Your task to perform on an android device: open device folders in google photos Image 0: 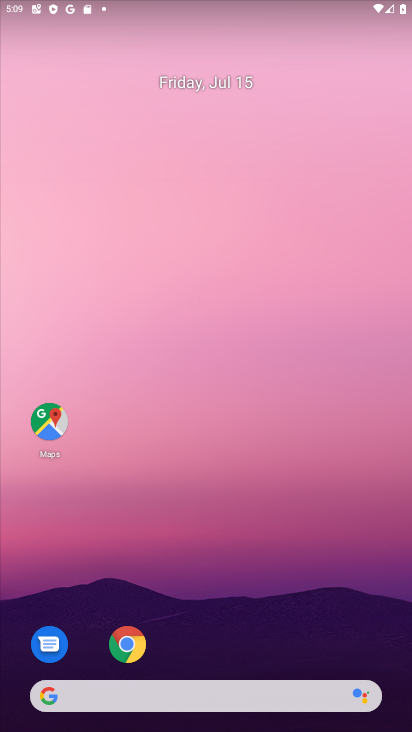
Step 0: drag from (205, 646) to (275, 250)
Your task to perform on an android device: open device folders in google photos Image 1: 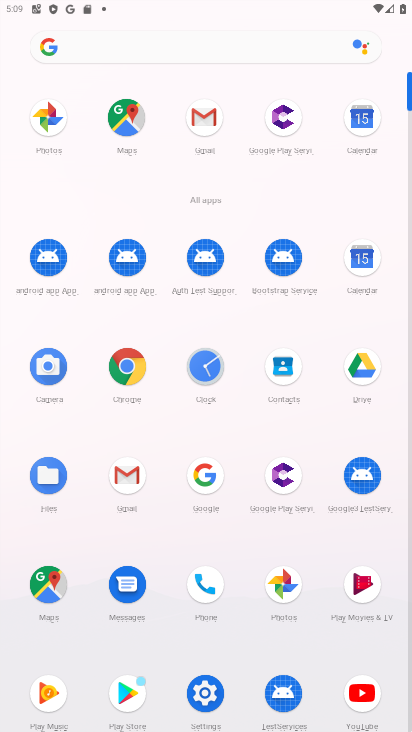
Step 1: drag from (246, 662) to (233, 419)
Your task to perform on an android device: open device folders in google photos Image 2: 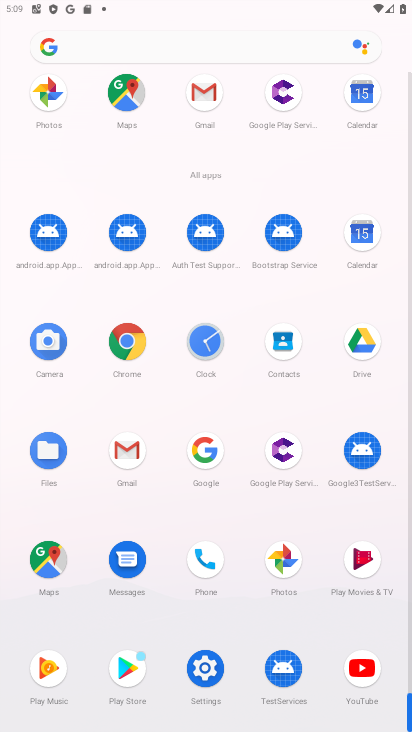
Step 2: drag from (245, 704) to (252, 429)
Your task to perform on an android device: open device folders in google photos Image 3: 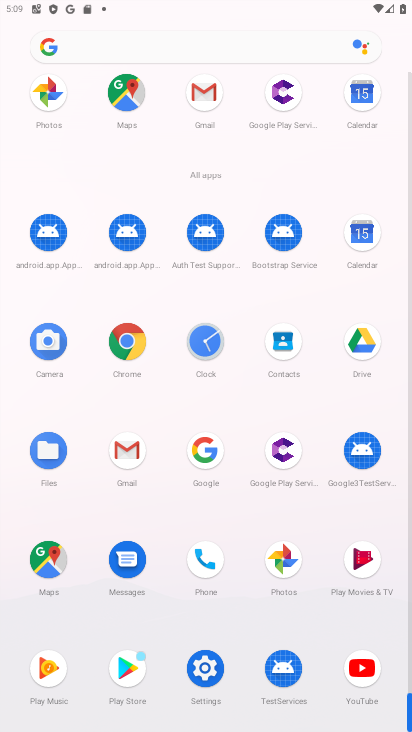
Step 3: click (297, 560)
Your task to perform on an android device: open device folders in google photos Image 4: 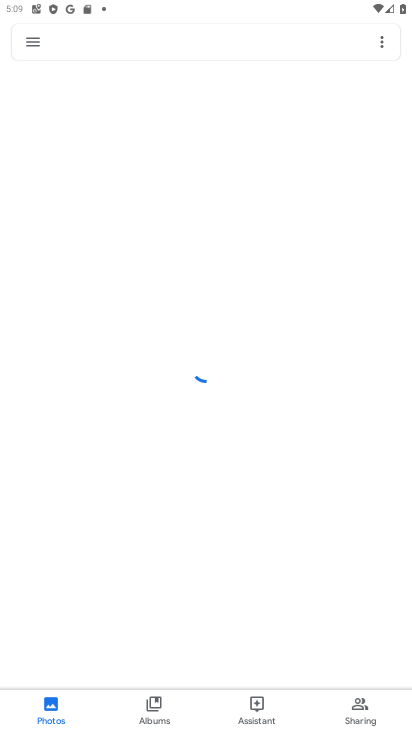
Step 4: click (29, 37)
Your task to perform on an android device: open device folders in google photos Image 5: 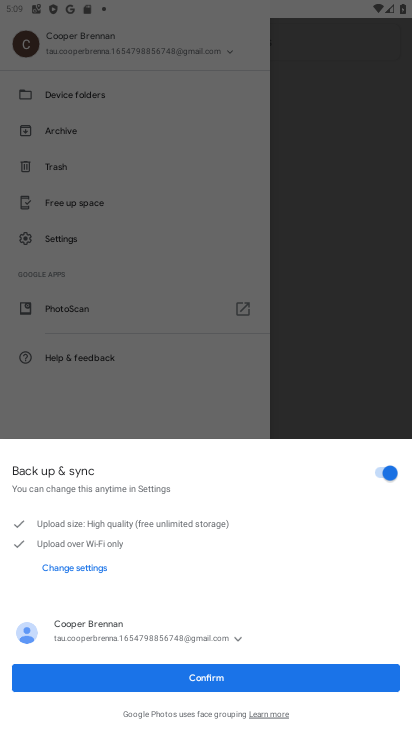
Step 5: click (170, 683)
Your task to perform on an android device: open device folders in google photos Image 6: 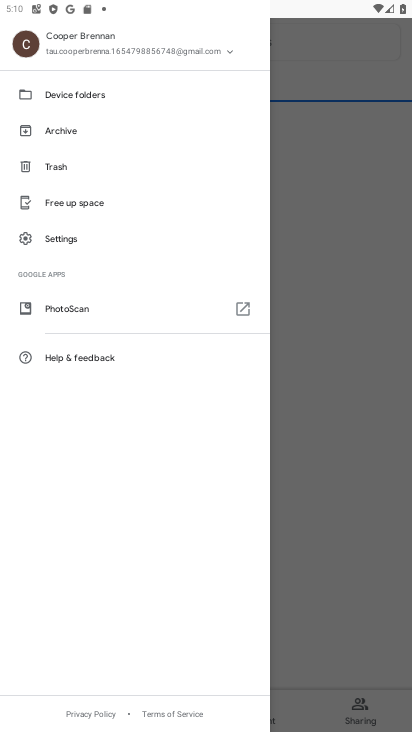
Step 6: click (130, 91)
Your task to perform on an android device: open device folders in google photos Image 7: 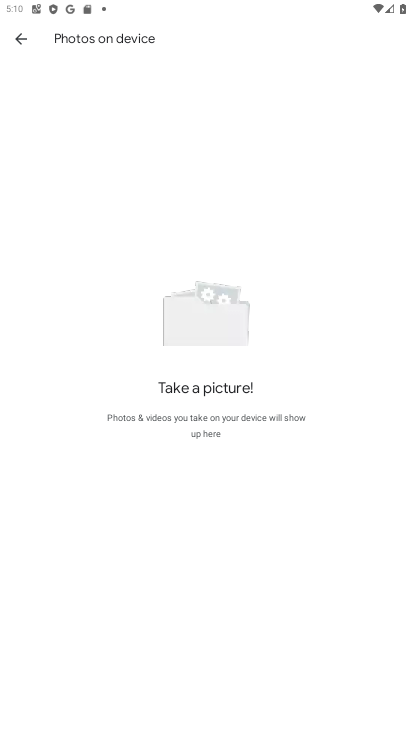
Step 7: task complete